Your task to perform on an android device: Open Wikipedia Image 0: 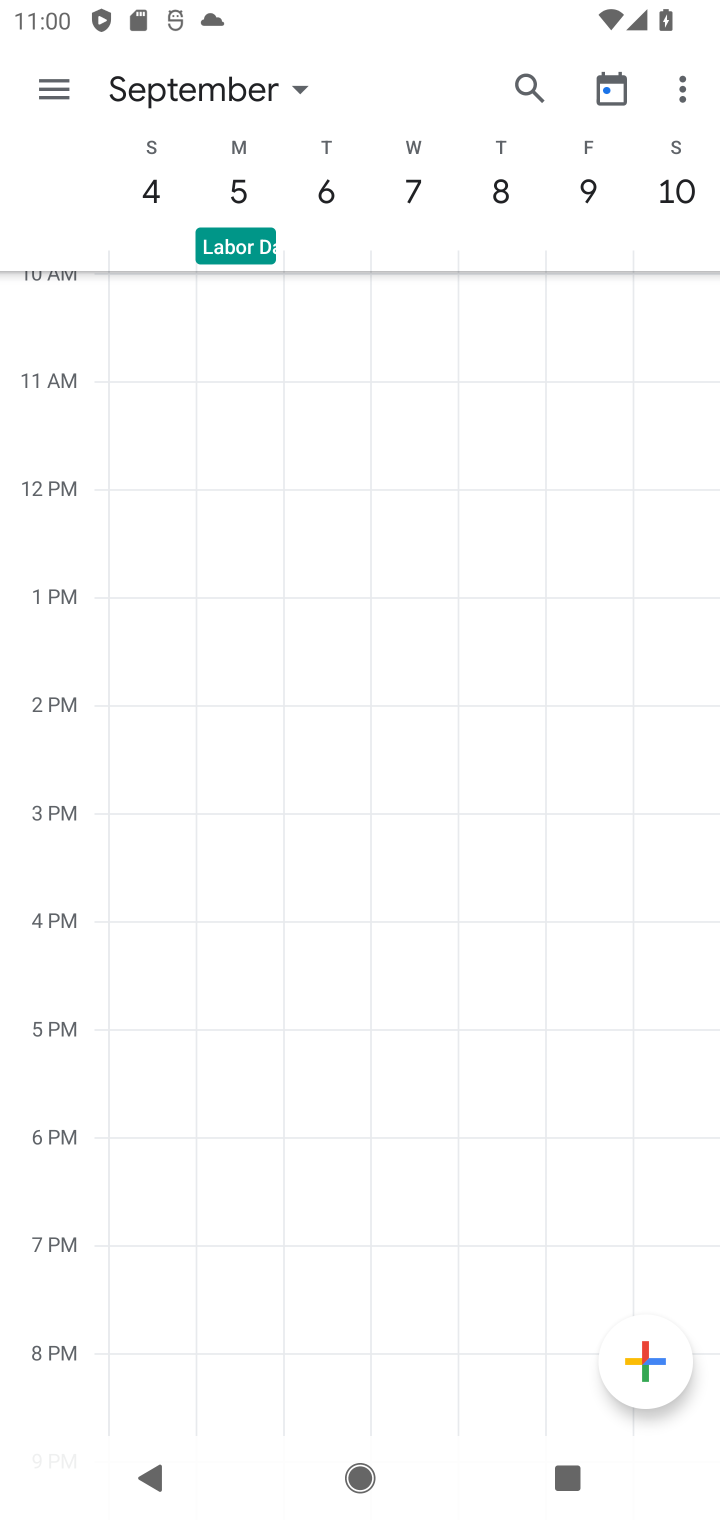
Step 0: press home button
Your task to perform on an android device: Open Wikipedia Image 1: 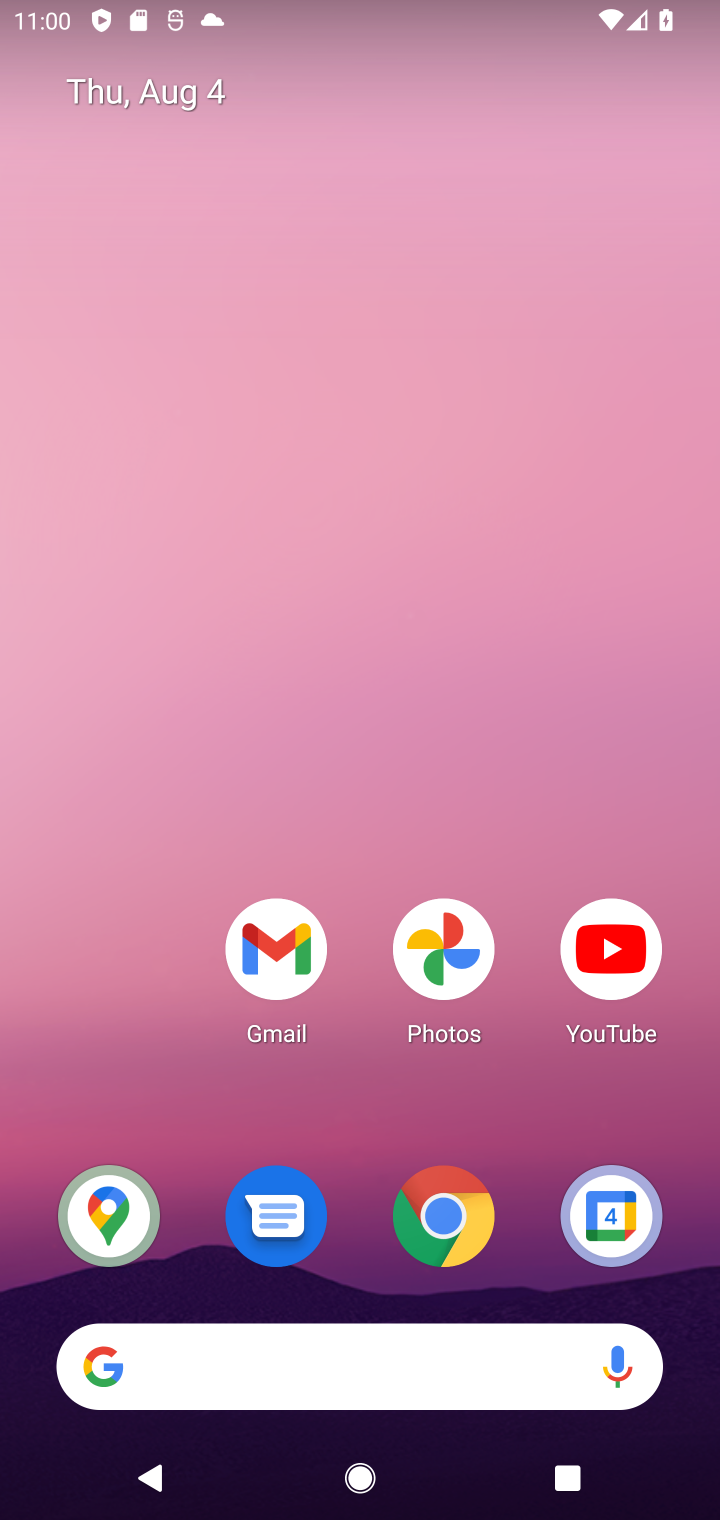
Step 1: click (435, 1214)
Your task to perform on an android device: Open Wikipedia Image 2: 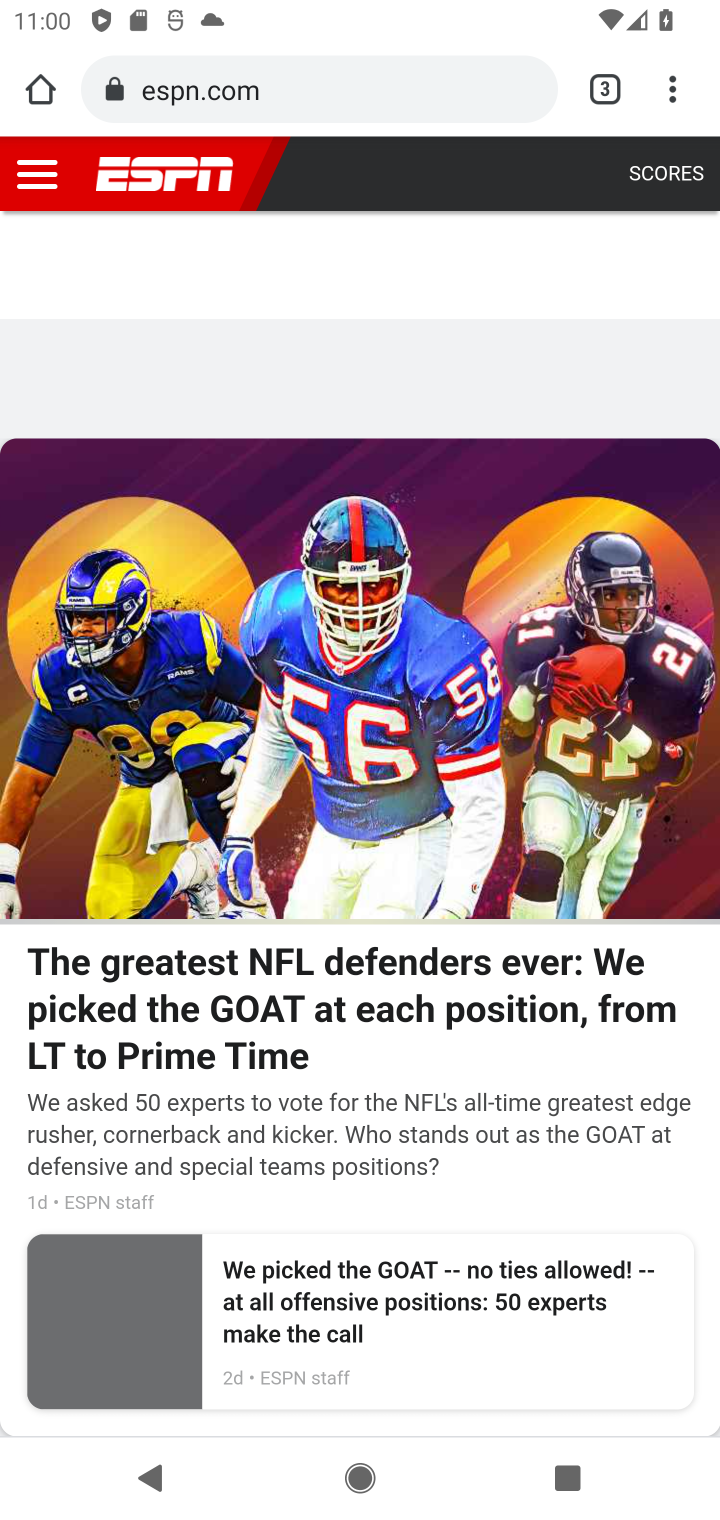
Step 2: click (349, 72)
Your task to perform on an android device: Open Wikipedia Image 3: 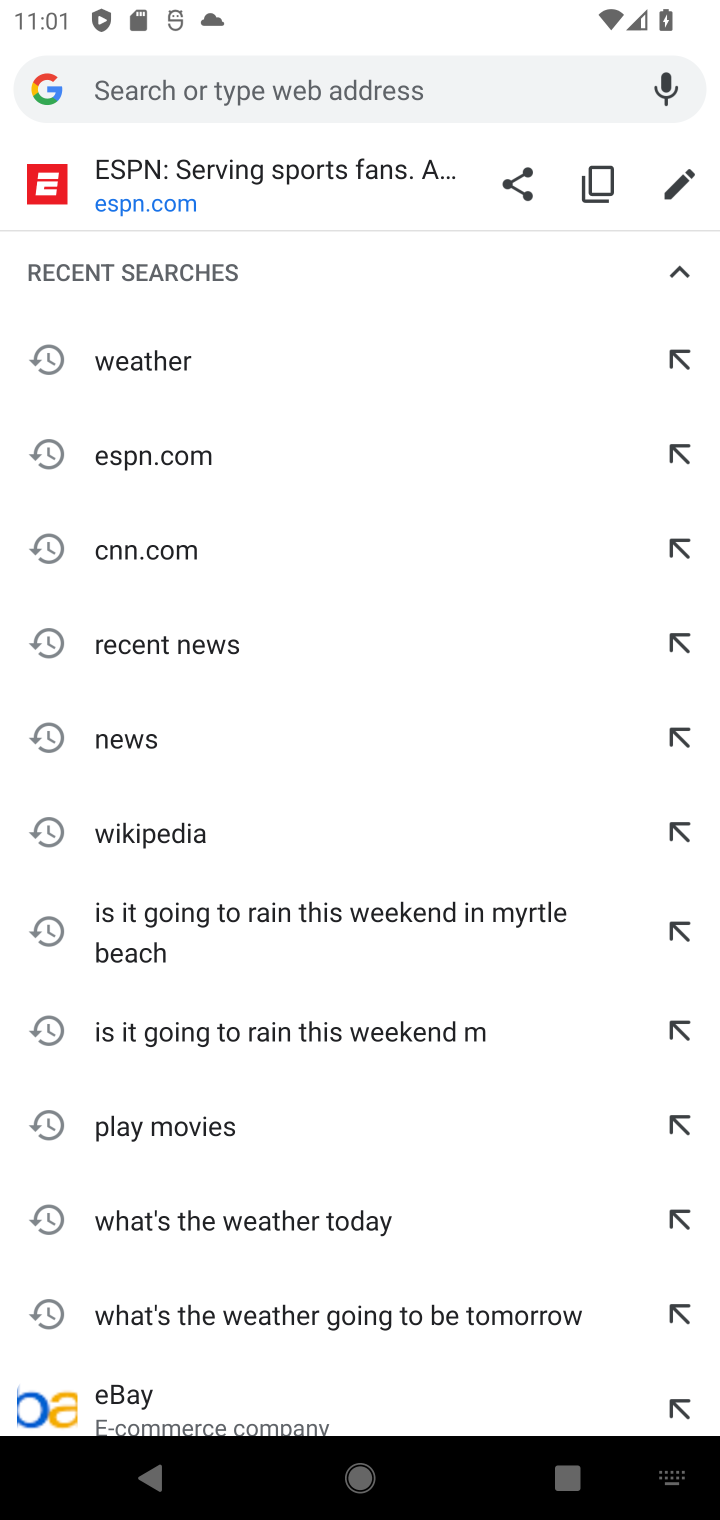
Step 3: click (182, 840)
Your task to perform on an android device: Open Wikipedia Image 4: 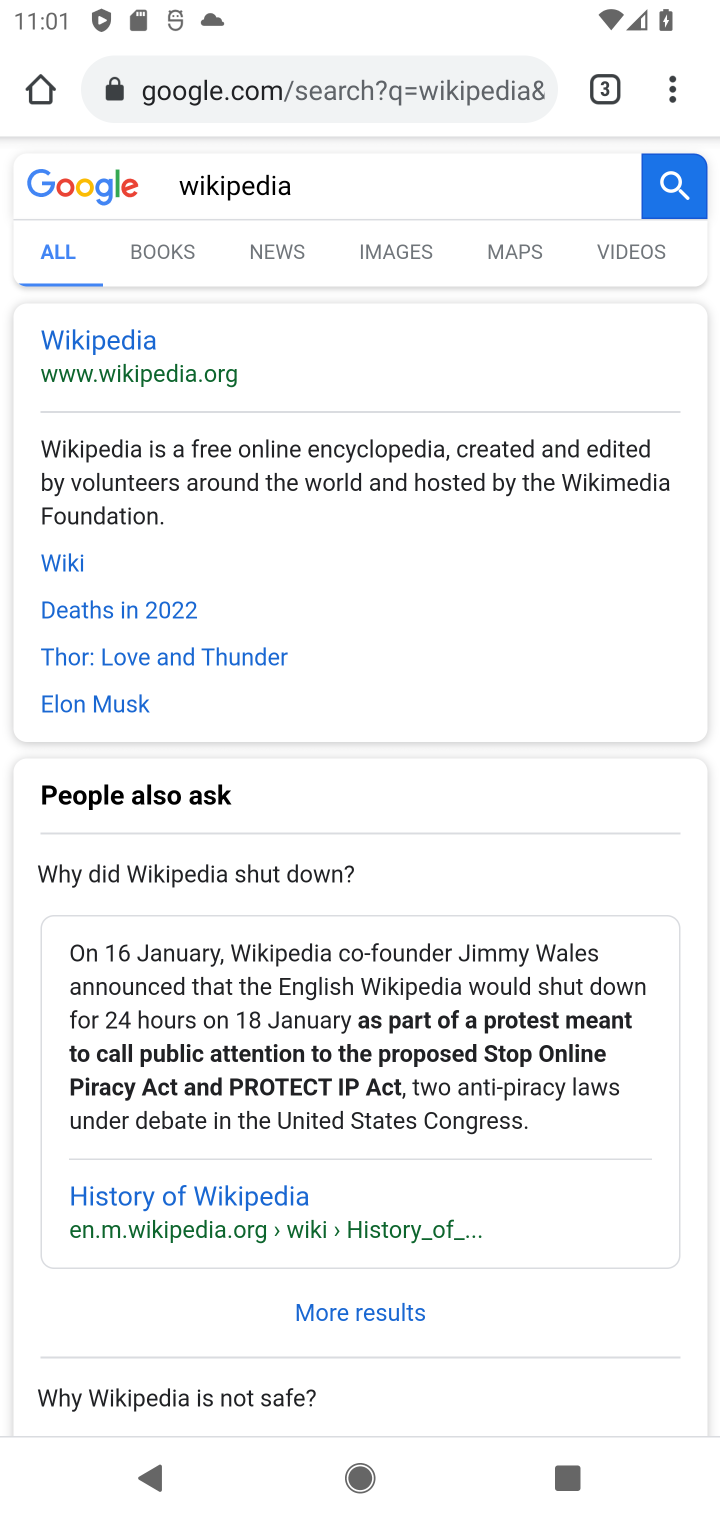
Step 4: click (108, 341)
Your task to perform on an android device: Open Wikipedia Image 5: 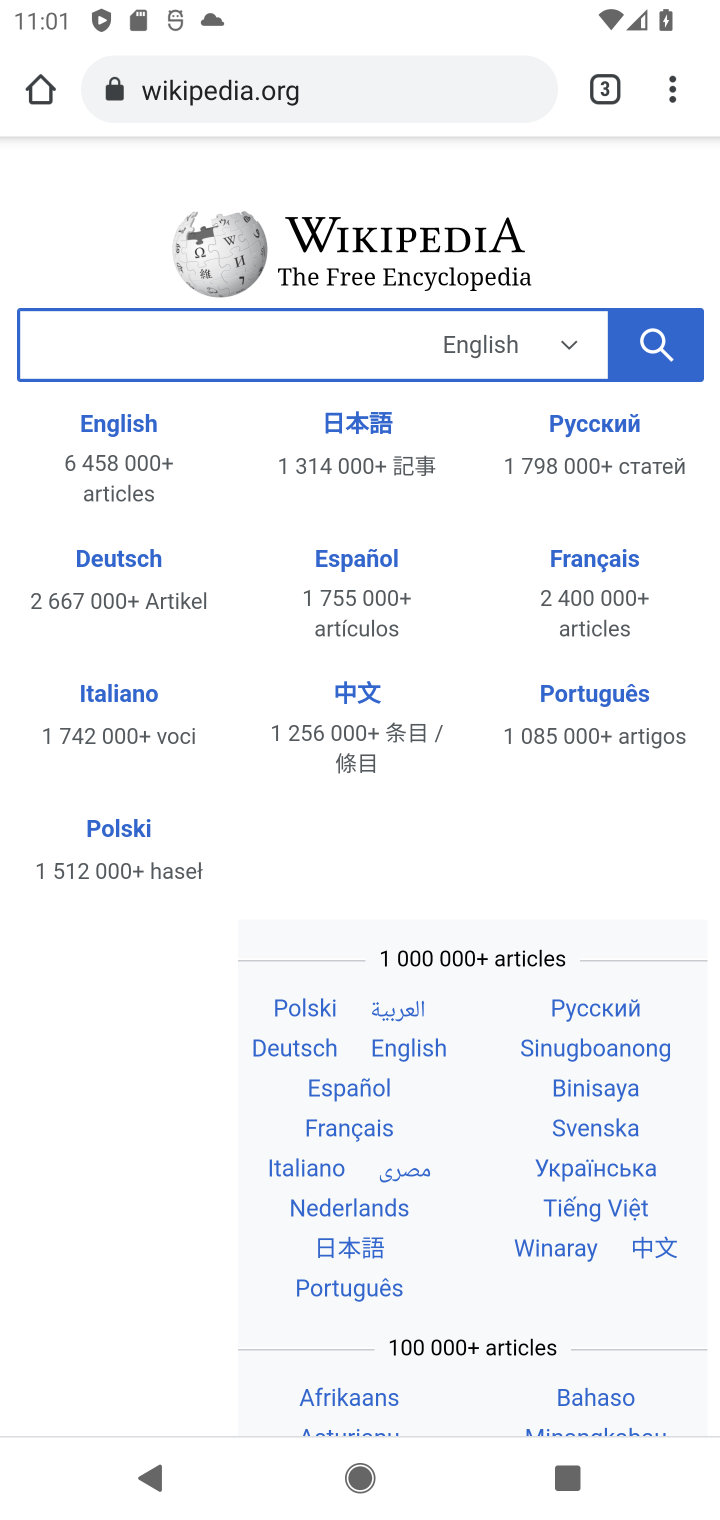
Step 5: task complete